Your task to perform on an android device: What's the weather going to be tomorrow? Image 0: 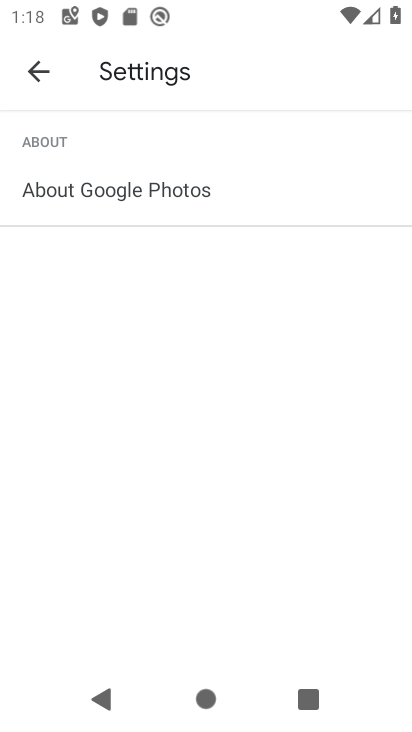
Step 0: press home button
Your task to perform on an android device: What's the weather going to be tomorrow? Image 1: 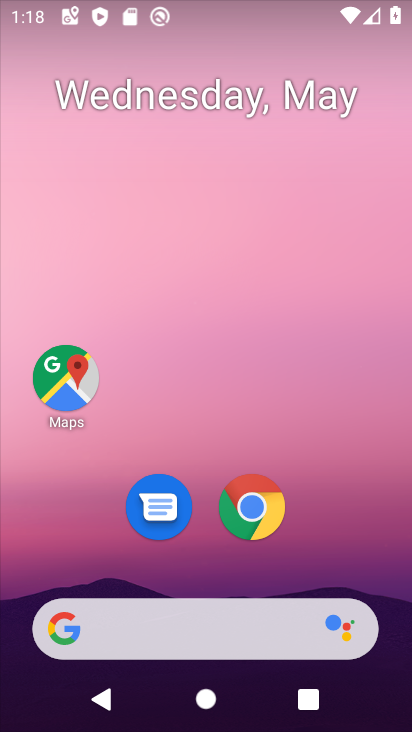
Step 1: drag from (217, 563) to (247, 228)
Your task to perform on an android device: What's the weather going to be tomorrow? Image 2: 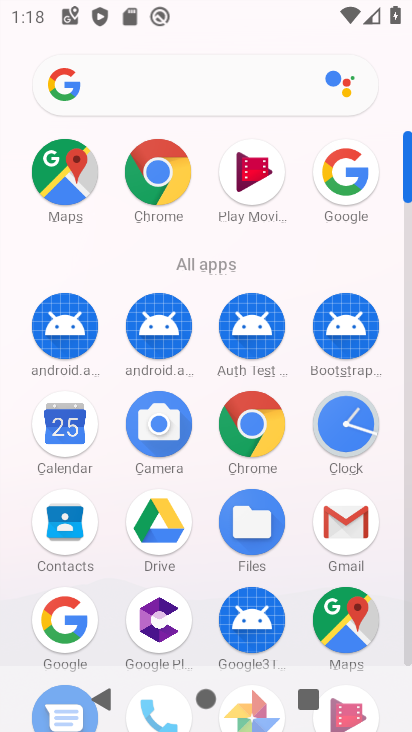
Step 2: click (70, 639)
Your task to perform on an android device: What's the weather going to be tomorrow? Image 3: 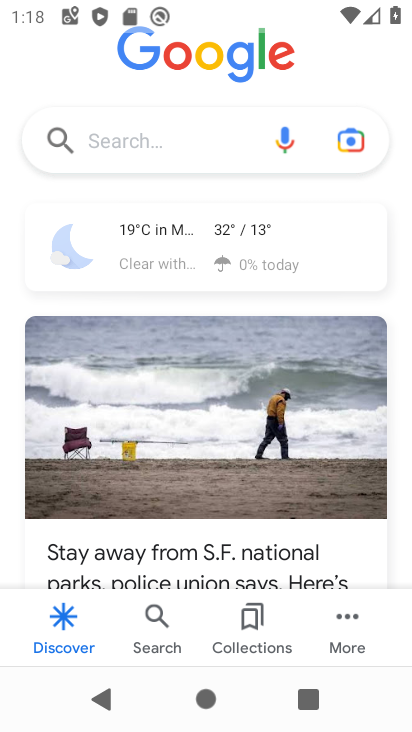
Step 3: click (174, 264)
Your task to perform on an android device: What's the weather going to be tomorrow? Image 4: 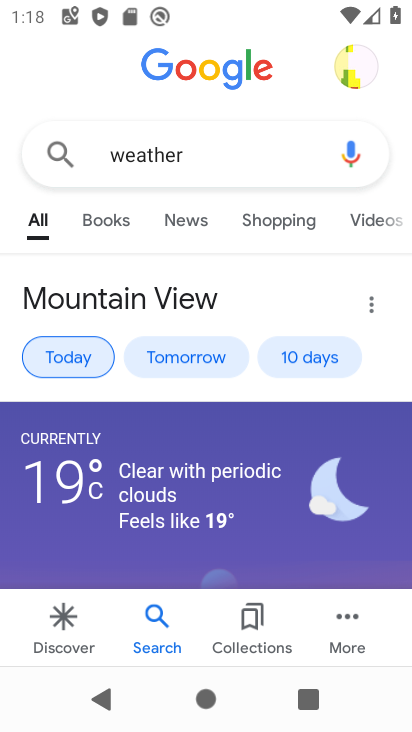
Step 4: click (201, 368)
Your task to perform on an android device: What's the weather going to be tomorrow? Image 5: 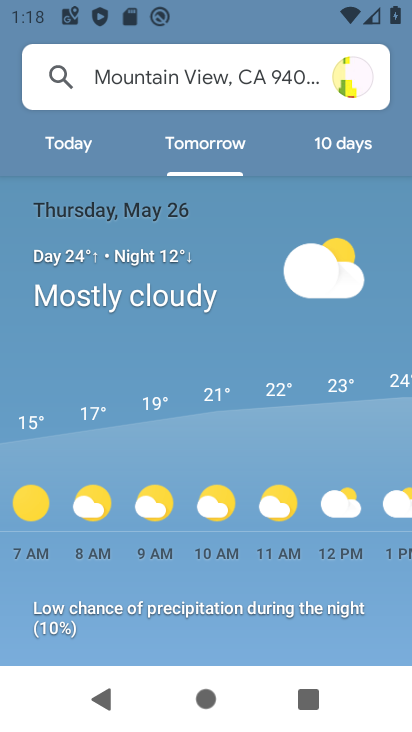
Step 5: task complete